Your task to perform on an android device: turn on wifi Image 0: 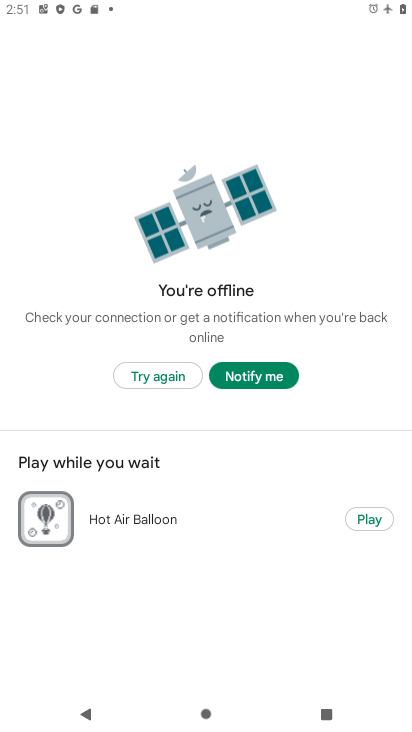
Step 0: press home button
Your task to perform on an android device: turn on wifi Image 1: 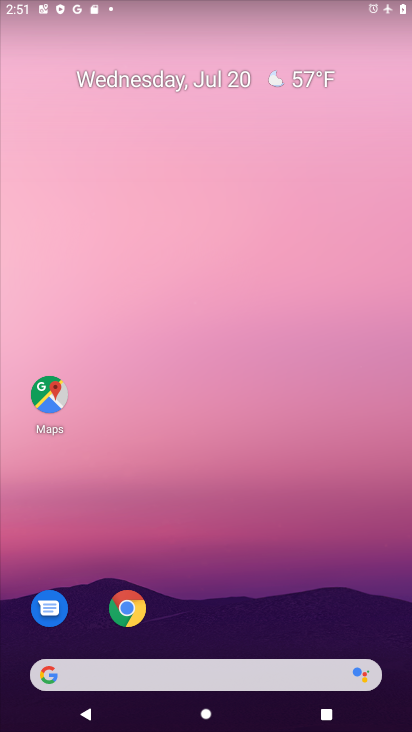
Step 1: drag from (196, 564) to (183, 52)
Your task to perform on an android device: turn on wifi Image 2: 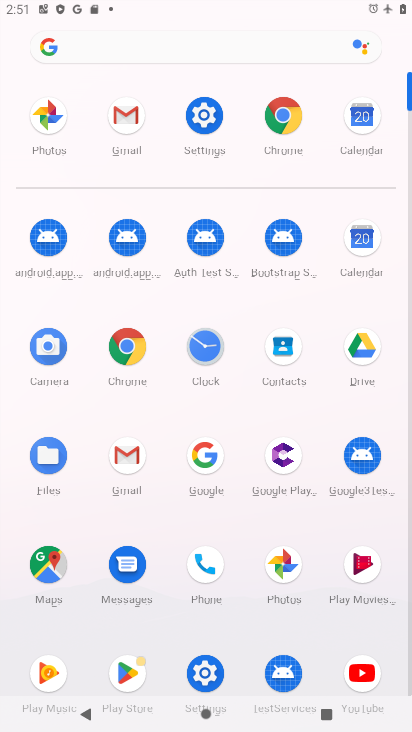
Step 2: click (203, 117)
Your task to perform on an android device: turn on wifi Image 3: 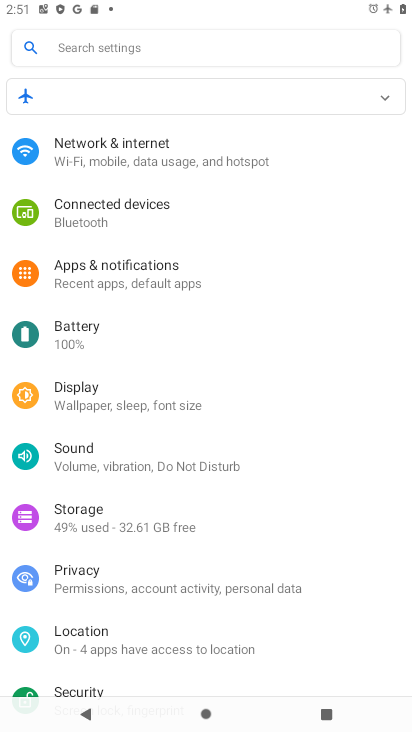
Step 3: click (146, 152)
Your task to perform on an android device: turn on wifi Image 4: 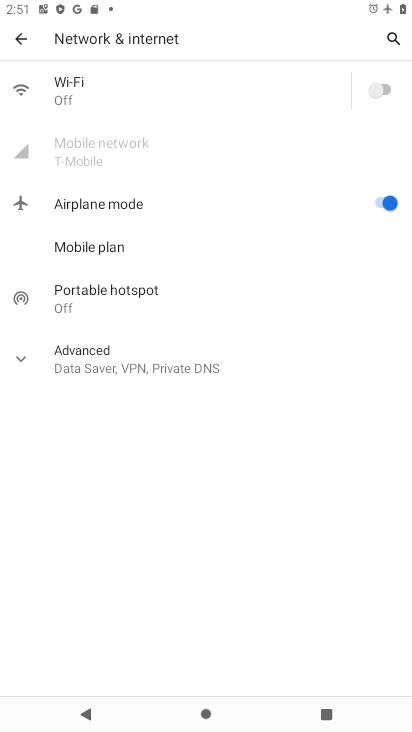
Step 4: click (383, 87)
Your task to perform on an android device: turn on wifi Image 5: 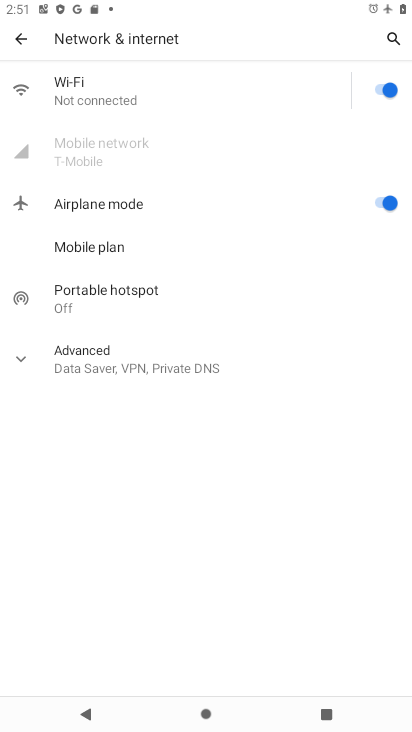
Step 5: task complete